Your task to perform on an android device: clear all cookies in the chrome app Image 0: 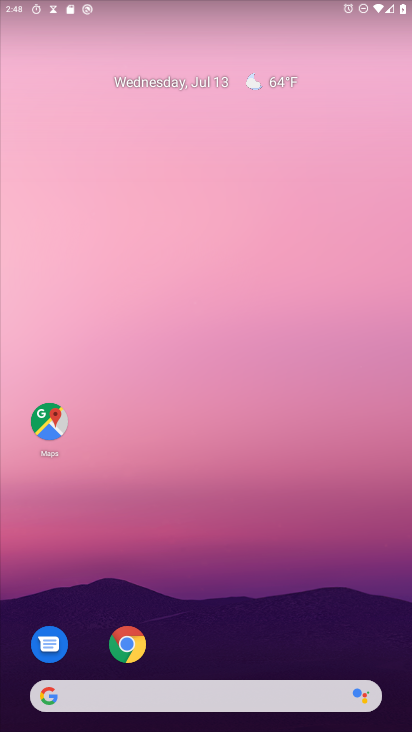
Step 0: press home button
Your task to perform on an android device: clear all cookies in the chrome app Image 1: 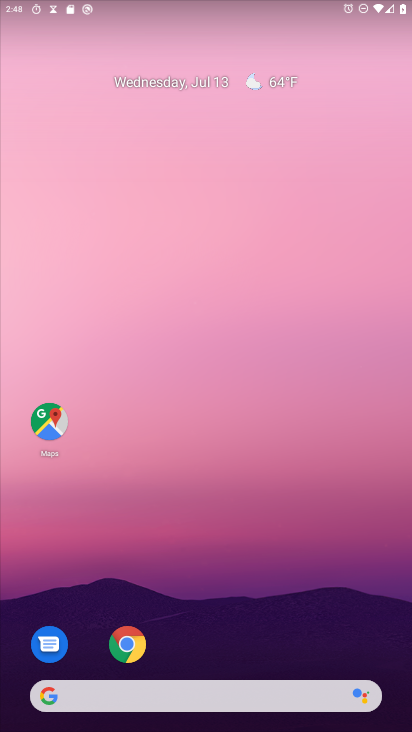
Step 1: drag from (235, 649) to (226, 191)
Your task to perform on an android device: clear all cookies in the chrome app Image 2: 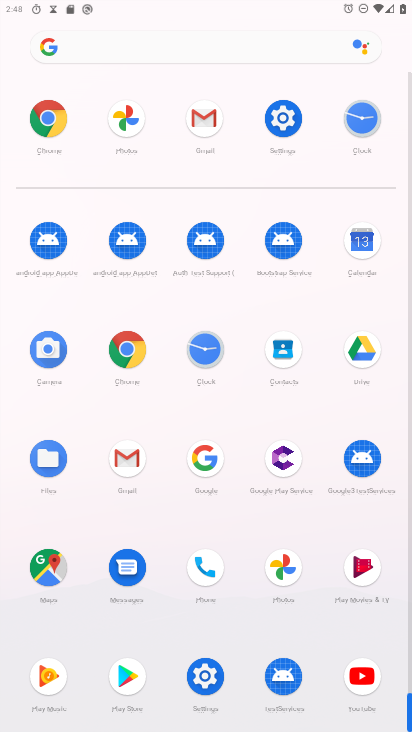
Step 2: click (56, 121)
Your task to perform on an android device: clear all cookies in the chrome app Image 3: 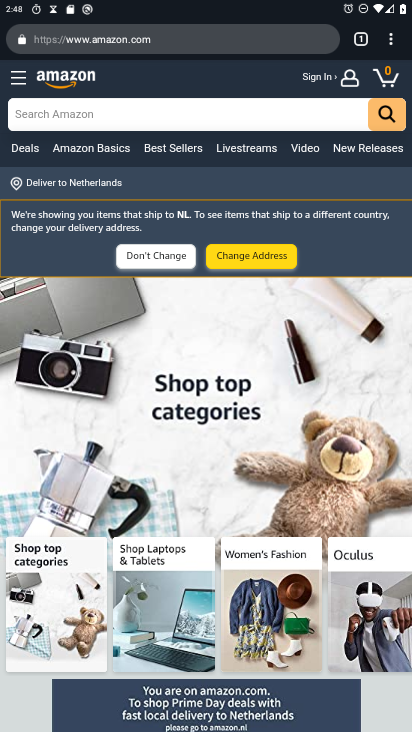
Step 3: click (388, 40)
Your task to perform on an android device: clear all cookies in the chrome app Image 4: 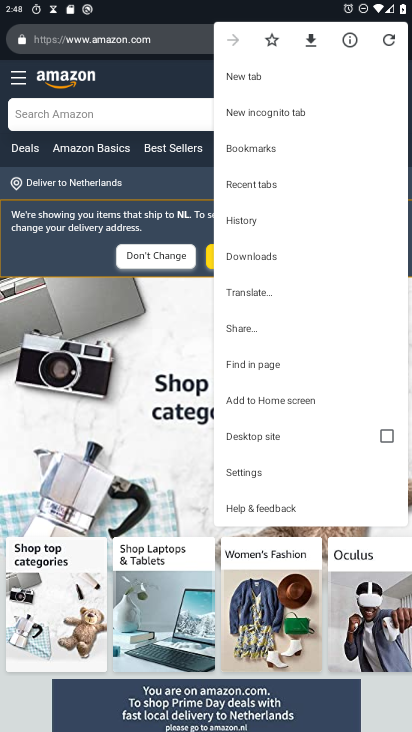
Step 4: click (237, 466)
Your task to perform on an android device: clear all cookies in the chrome app Image 5: 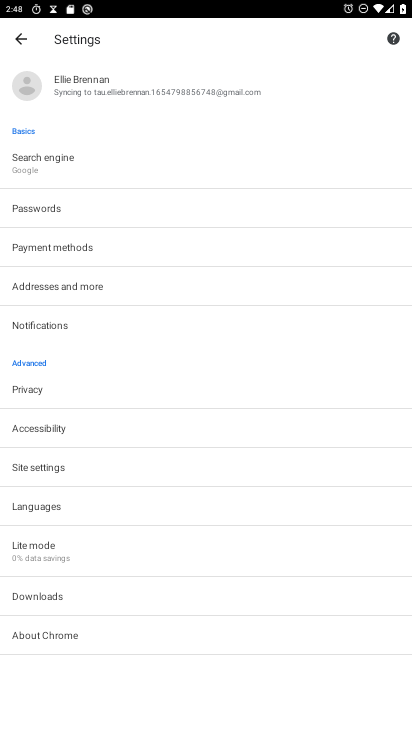
Step 5: click (29, 387)
Your task to perform on an android device: clear all cookies in the chrome app Image 6: 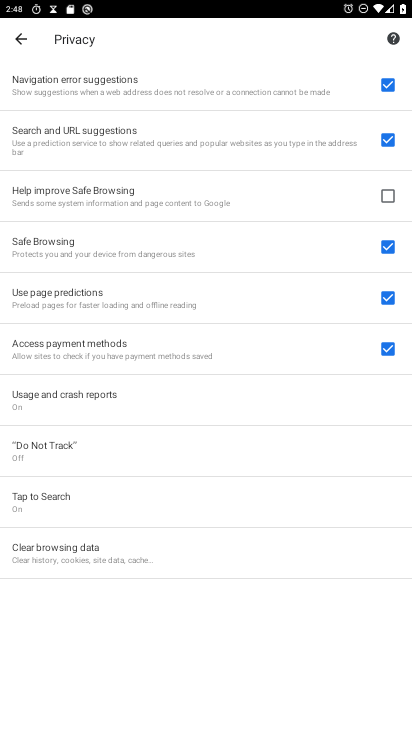
Step 6: click (119, 552)
Your task to perform on an android device: clear all cookies in the chrome app Image 7: 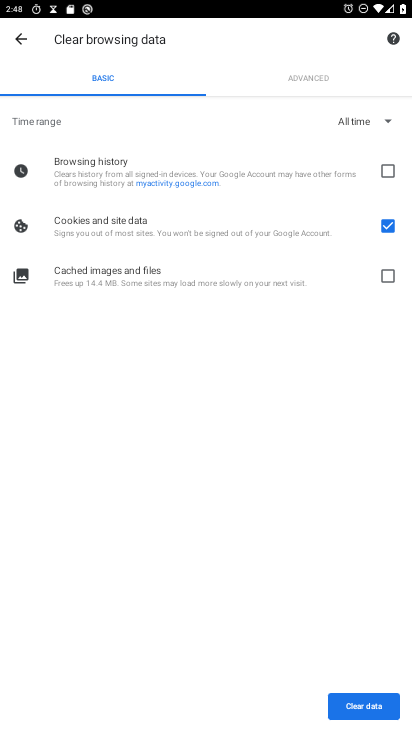
Step 7: click (362, 708)
Your task to perform on an android device: clear all cookies in the chrome app Image 8: 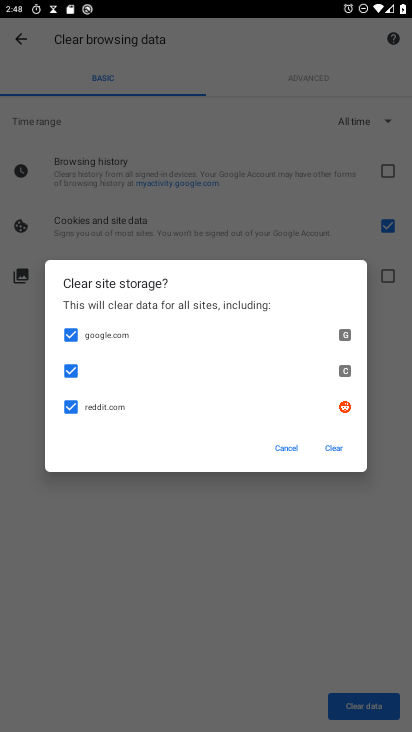
Step 8: click (329, 444)
Your task to perform on an android device: clear all cookies in the chrome app Image 9: 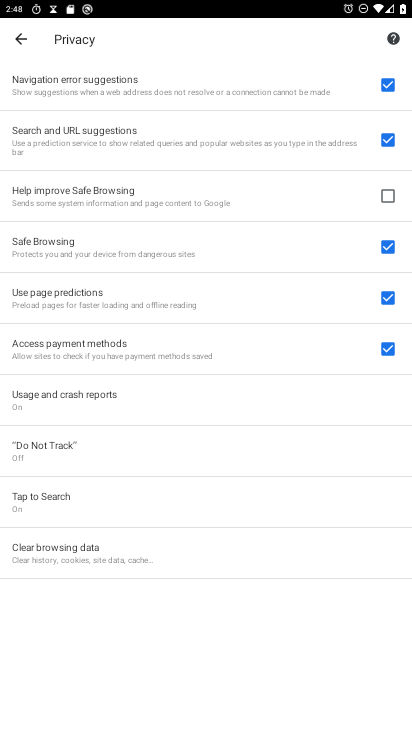
Step 9: task complete